Your task to perform on an android device: change the clock display to show seconds Image 0: 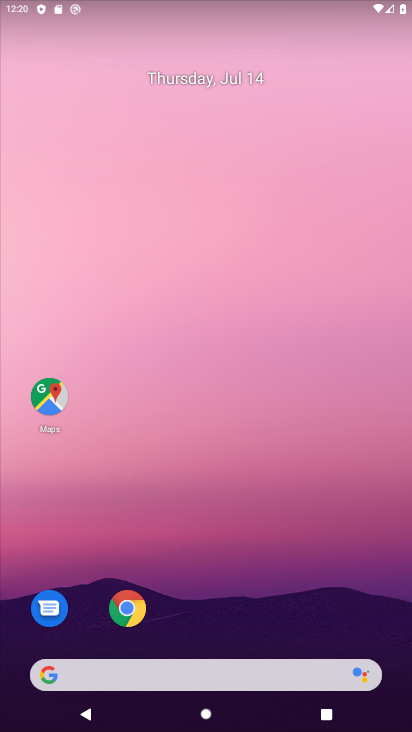
Step 0: drag from (167, 640) to (234, 249)
Your task to perform on an android device: change the clock display to show seconds Image 1: 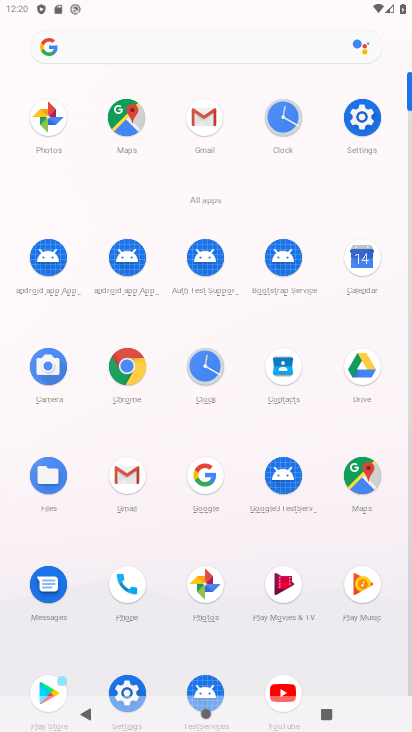
Step 1: click (208, 359)
Your task to perform on an android device: change the clock display to show seconds Image 2: 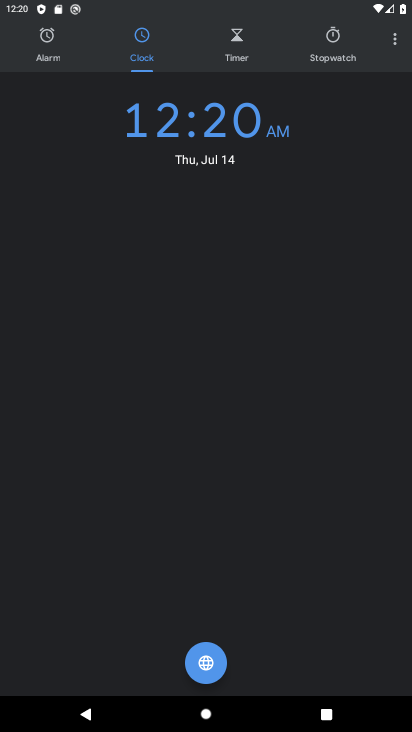
Step 2: drag from (296, 381) to (306, 295)
Your task to perform on an android device: change the clock display to show seconds Image 3: 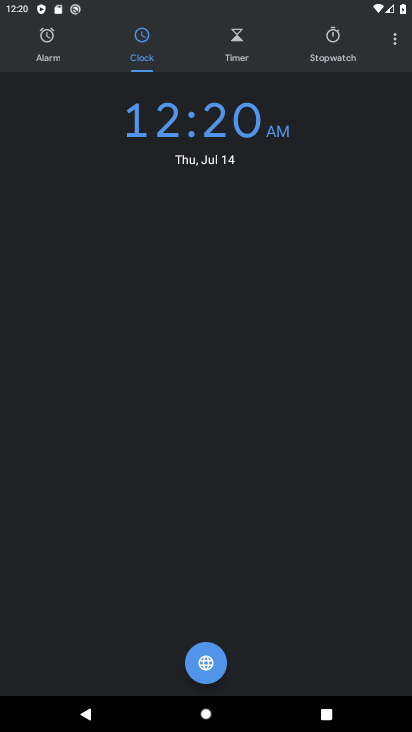
Step 3: drag from (137, 465) to (174, 422)
Your task to perform on an android device: change the clock display to show seconds Image 4: 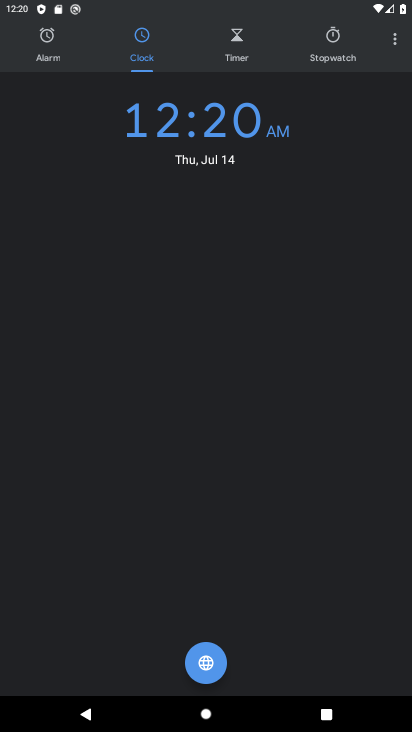
Step 4: click (387, 36)
Your task to perform on an android device: change the clock display to show seconds Image 5: 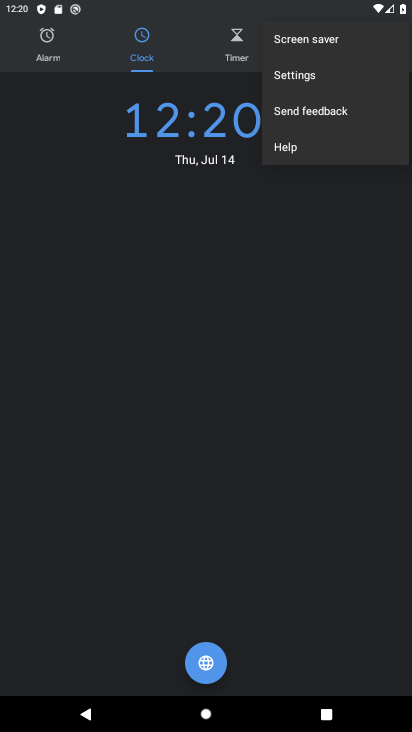
Step 5: click (321, 75)
Your task to perform on an android device: change the clock display to show seconds Image 6: 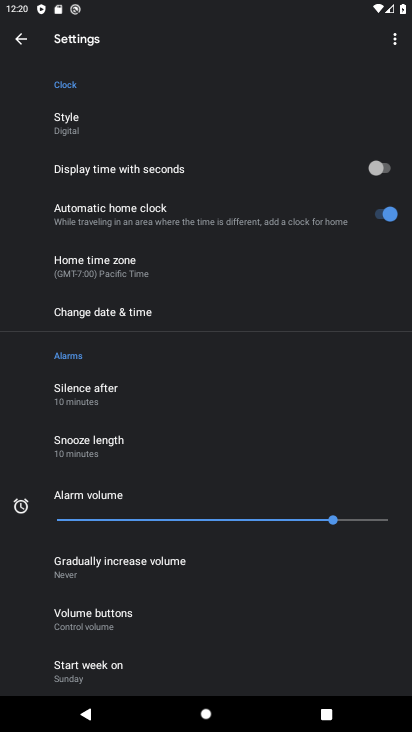
Step 6: click (211, 165)
Your task to perform on an android device: change the clock display to show seconds Image 7: 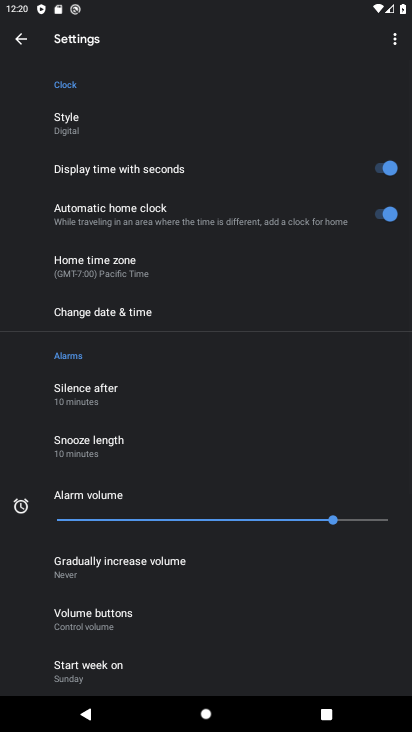
Step 7: task complete